Your task to perform on an android device: turn on translation in the chrome app Image 0: 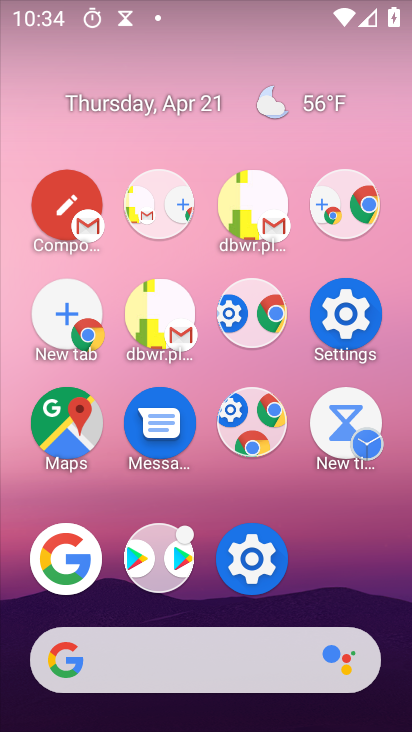
Step 0: drag from (288, 501) to (236, 226)
Your task to perform on an android device: turn on translation in the chrome app Image 1: 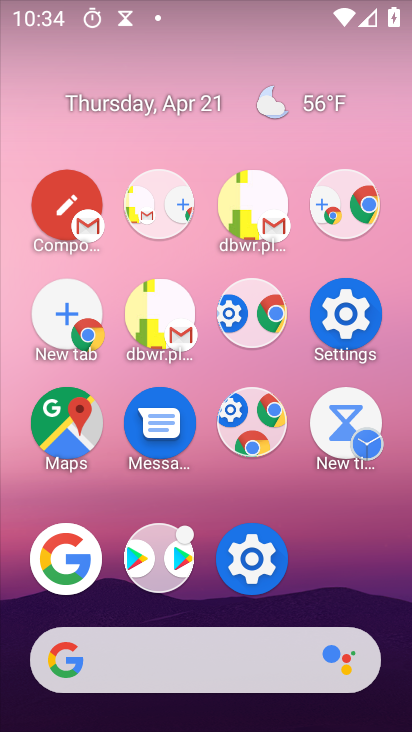
Step 1: drag from (370, 615) to (176, 144)
Your task to perform on an android device: turn on translation in the chrome app Image 2: 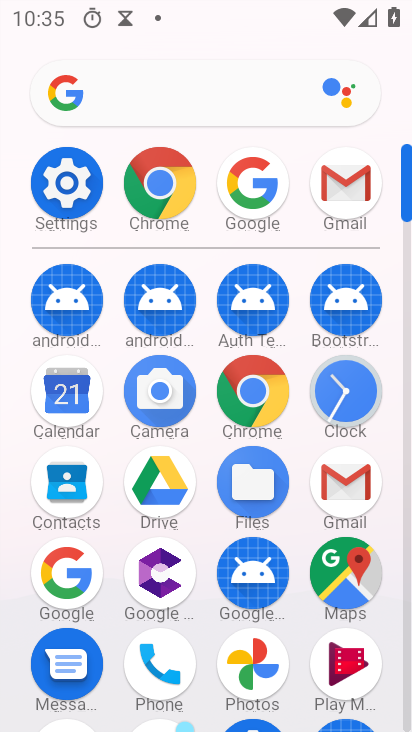
Step 2: click (245, 392)
Your task to perform on an android device: turn on translation in the chrome app Image 3: 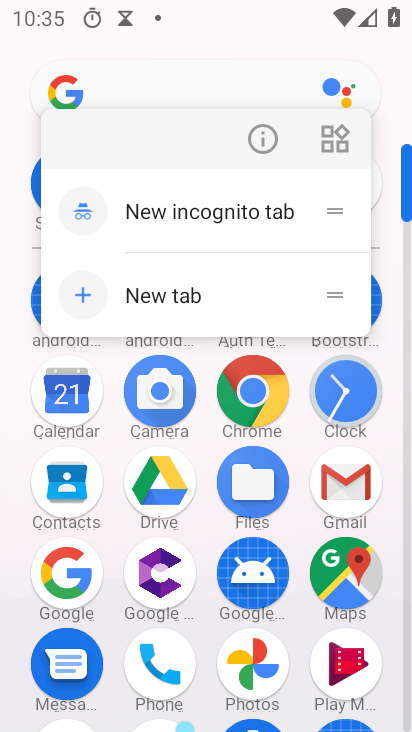
Step 3: click (258, 392)
Your task to perform on an android device: turn on translation in the chrome app Image 4: 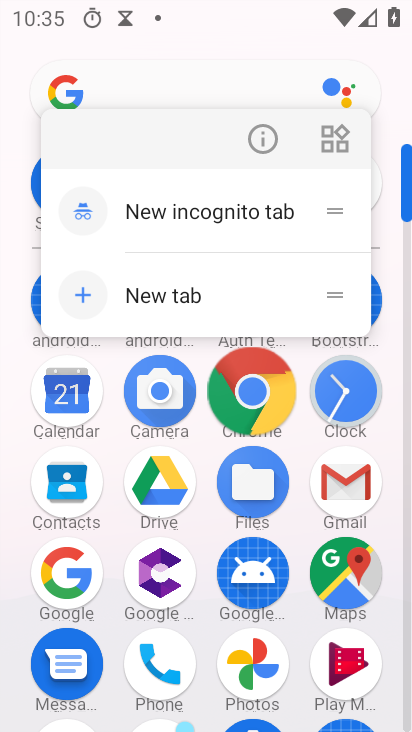
Step 4: drag from (261, 394) to (264, 357)
Your task to perform on an android device: turn on translation in the chrome app Image 5: 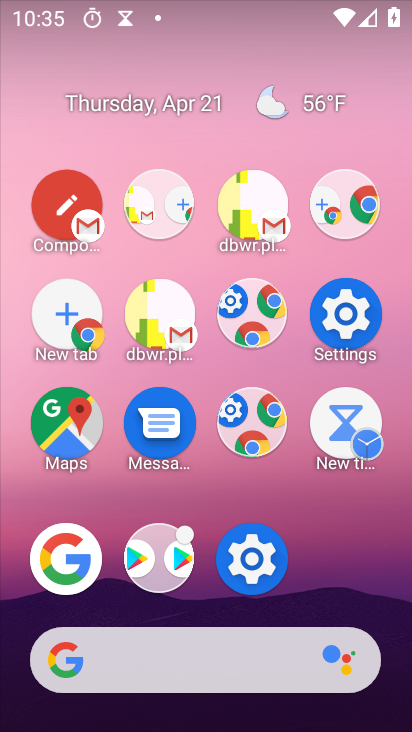
Step 5: drag from (335, 595) to (140, 165)
Your task to perform on an android device: turn on translation in the chrome app Image 6: 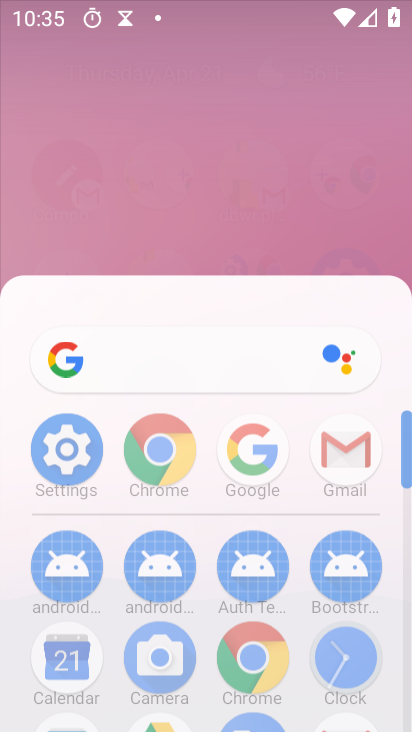
Step 6: drag from (313, 574) to (112, 15)
Your task to perform on an android device: turn on translation in the chrome app Image 7: 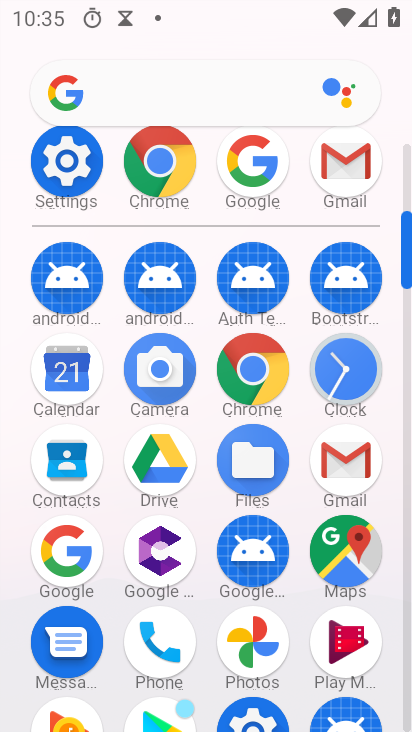
Step 7: click (165, 162)
Your task to perform on an android device: turn on translation in the chrome app Image 8: 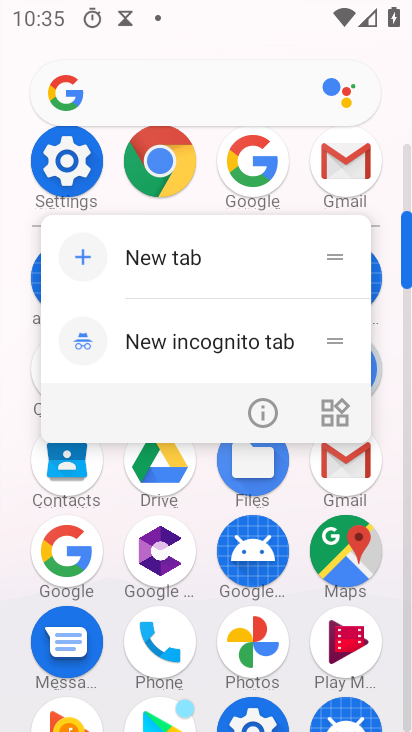
Step 8: click (169, 158)
Your task to perform on an android device: turn on translation in the chrome app Image 9: 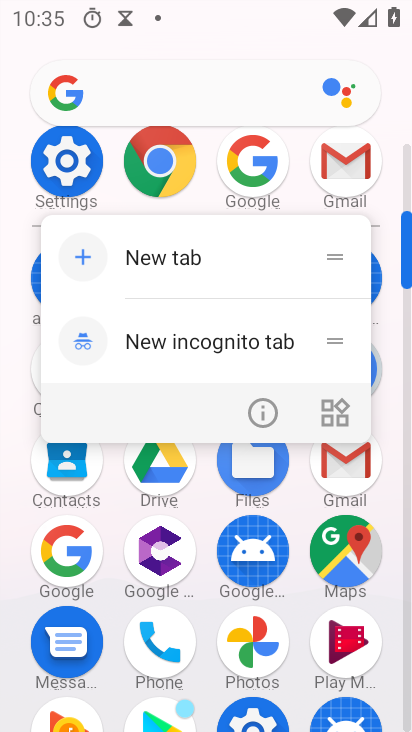
Step 9: click (141, 155)
Your task to perform on an android device: turn on translation in the chrome app Image 10: 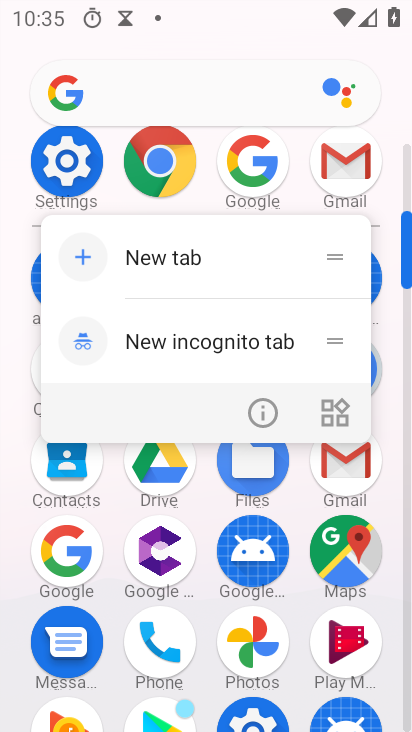
Step 10: click (164, 150)
Your task to perform on an android device: turn on translation in the chrome app Image 11: 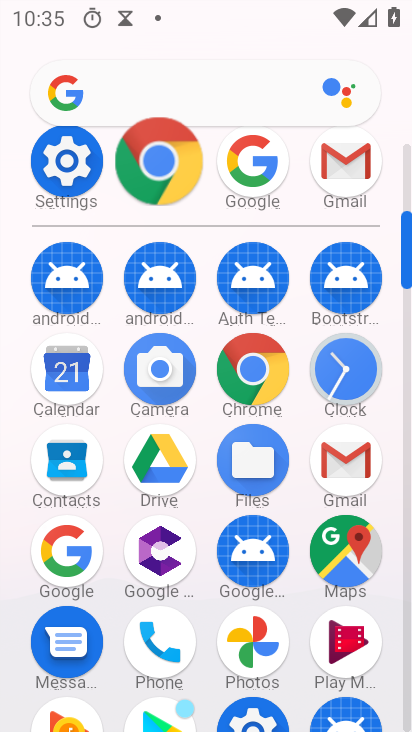
Step 11: click (166, 155)
Your task to perform on an android device: turn on translation in the chrome app Image 12: 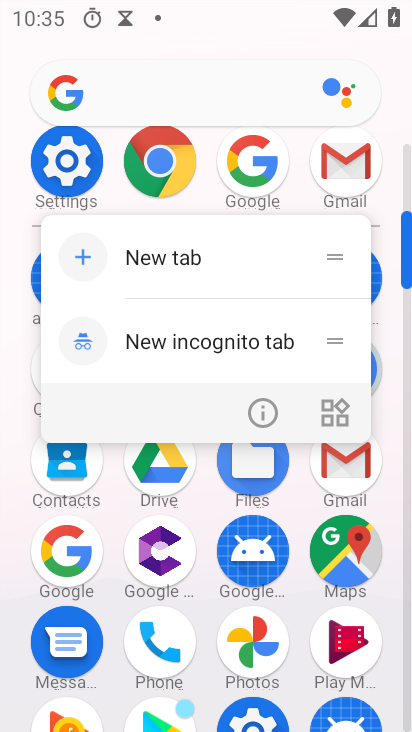
Step 12: click (166, 155)
Your task to perform on an android device: turn on translation in the chrome app Image 13: 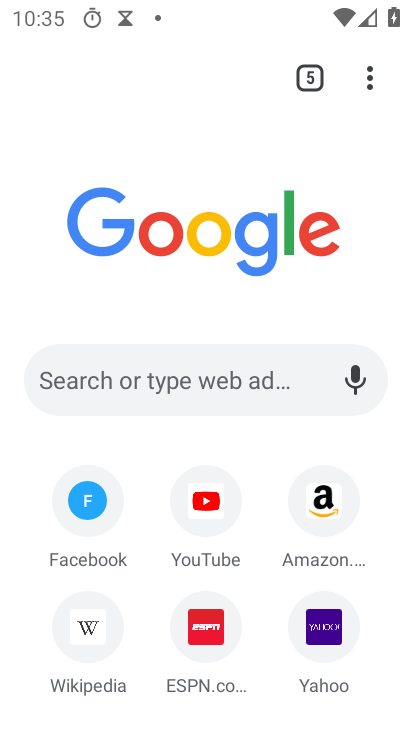
Step 13: drag from (370, 78) to (104, 623)
Your task to perform on an android device: turn on translation in the chrome app Image 14: 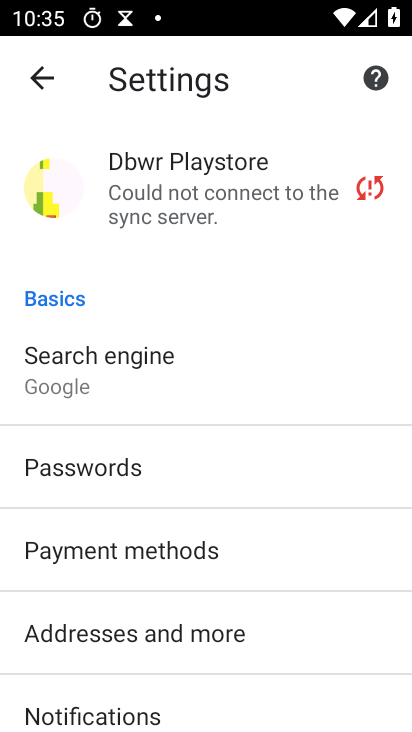
Step 14: drag from (197, 526) to (175, 229)
Your task to perform on an android device: turn on translation in the chrome app Image 15: 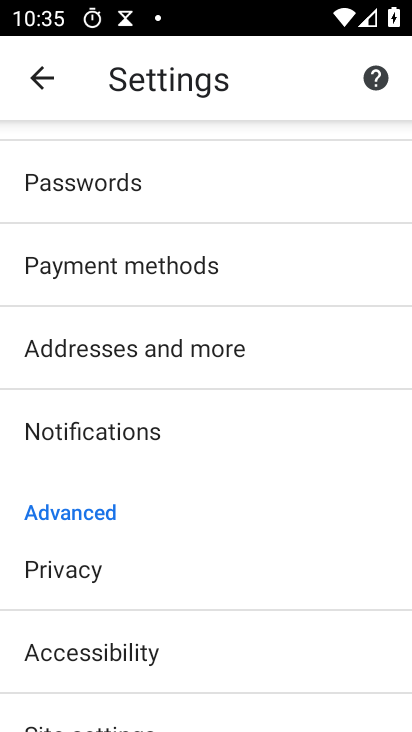
Step 15: drag from (178, 487) to (190, 193)
Your task to perform on an android device: turn on translation in the chrome app Image 16: 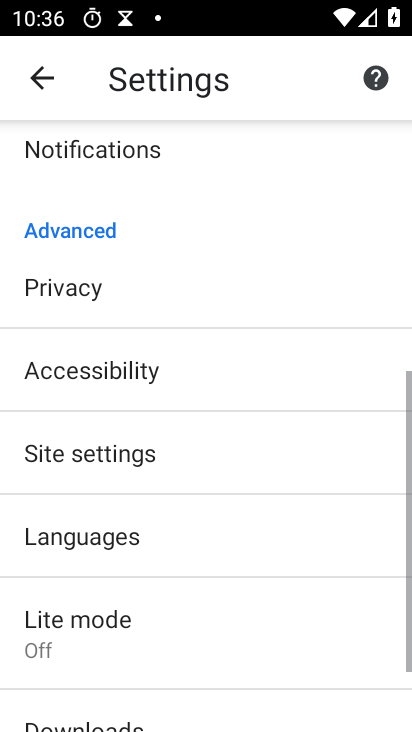
Step 16: drag from (226, 447) to (231, 296)
Your task to perform on an android device: turn on translation in the chrome app Image 17: 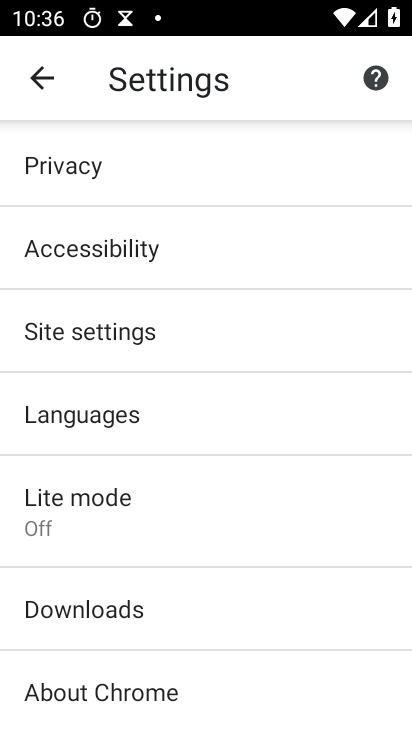
Step 17: click (91, 416)
Your task to perform on an android device: turn on translation in the chrome app Image 18: 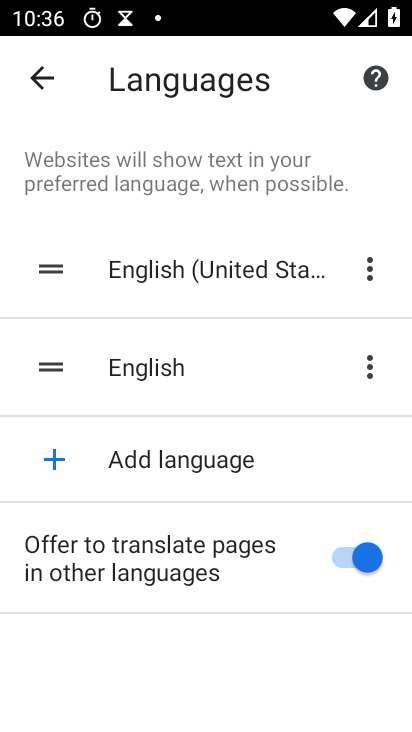
Step 18: click (354, 547)
Your task to perform on an android device: turn on translation in the chrome app Image 19: 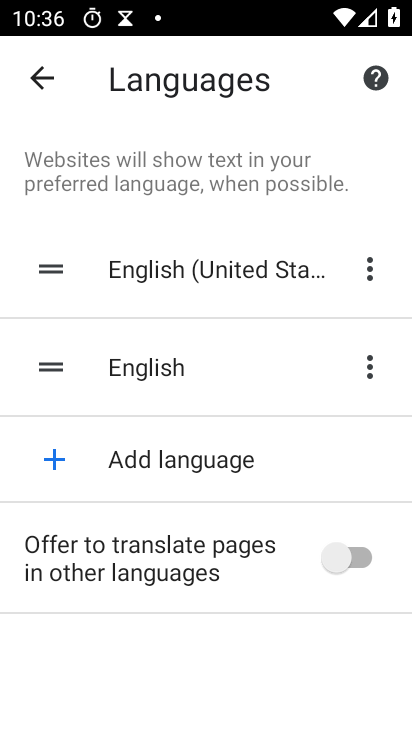
Step 19: click (334, 563)
Your task to perform on an android device: turn on translation in the chrome app Image 20: 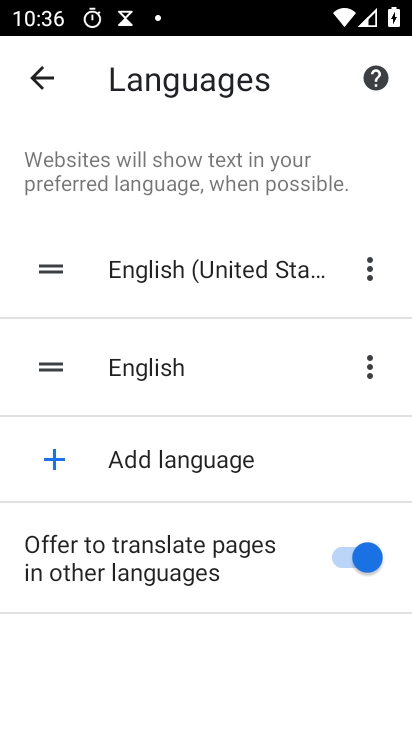
Step 20: task complete